Your task to perform on an android device: Open display settings Image 0: 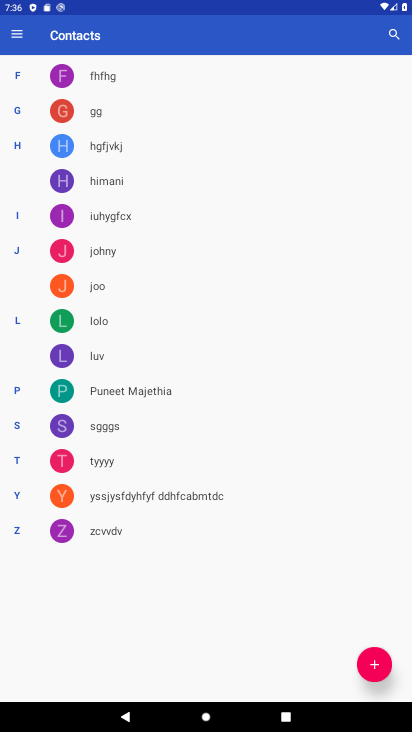
Step 0: press home button
Your task to perform on an android device: Open display settings Image 1: 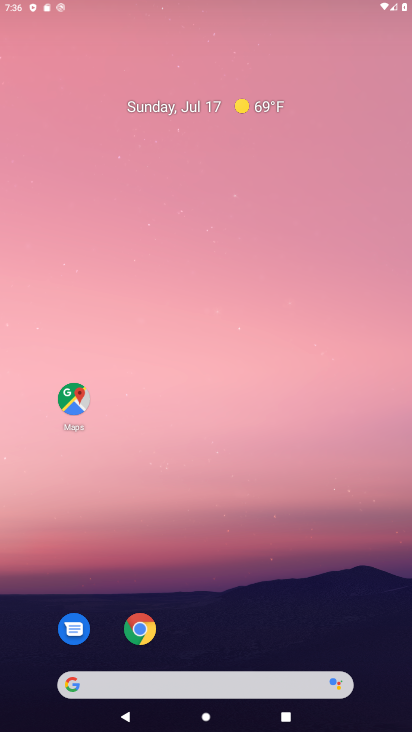
Step 1: drag from (200, 588) to (186, 104)
Your task to perform on an android device: Open display settings Image 2: 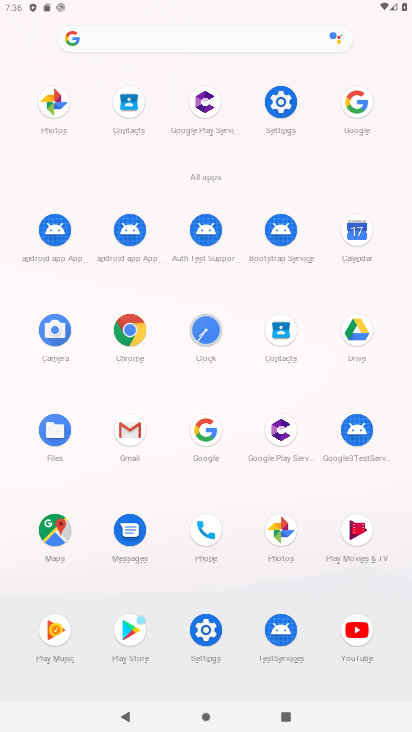
Step 2: click (282, 99)
Your task to perform on an android device: Open display settings Image 3: 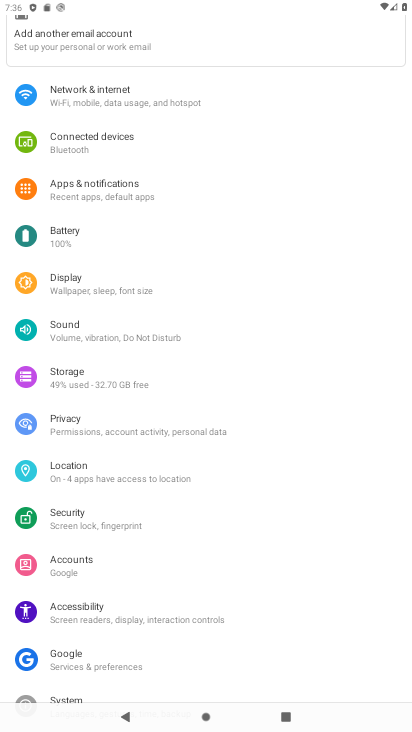
Step 3: click (80, 282)
Your task to perform on an android device: Open display settings Image 4: 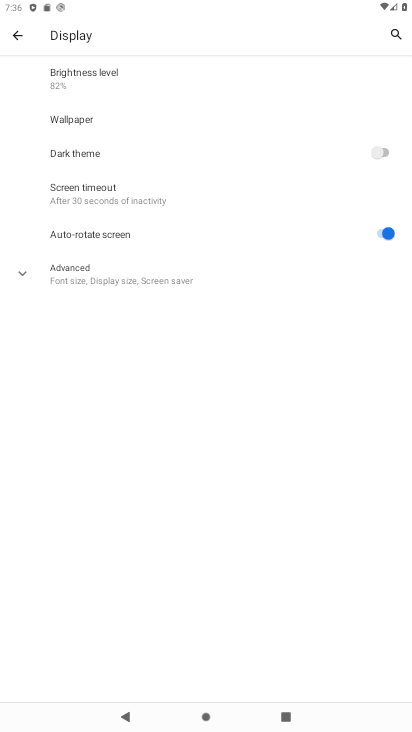
Step 4: task complete